Your task to perform on an android device: Go to battery settings Image 0: 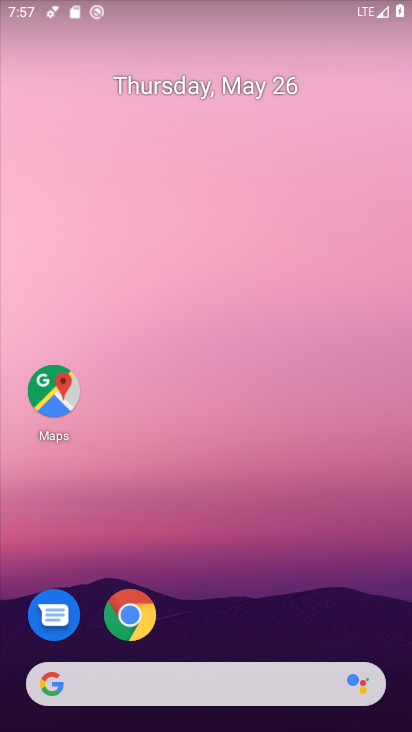
Step 0: drag from (189, 623) to (217, 327)
Your task to perform on an android device: Go to battery settings Image 1: 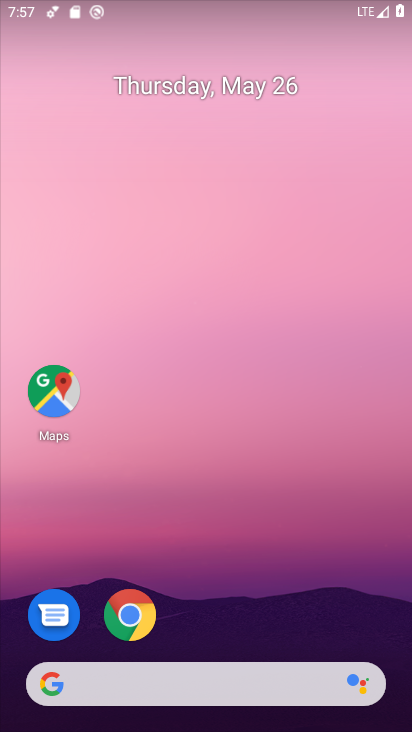
Step 1: drag from (205, 634) to (264, 184)
Your task to perform on an android device: Go to battery settings Image 2: 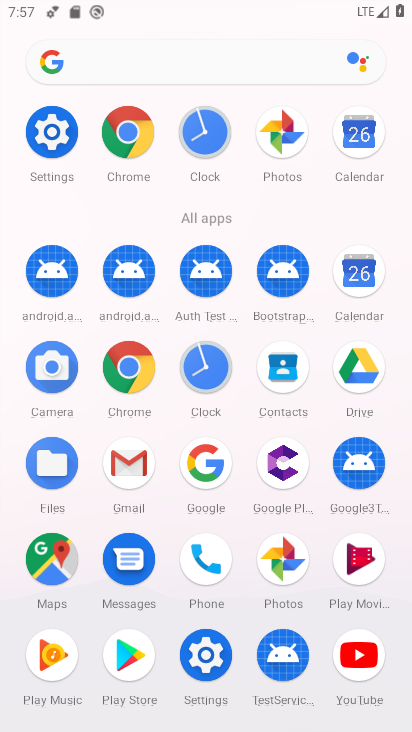
Step 2: click (52, 124)
Your task to perform on an android device: Go to battery settings Image 3: 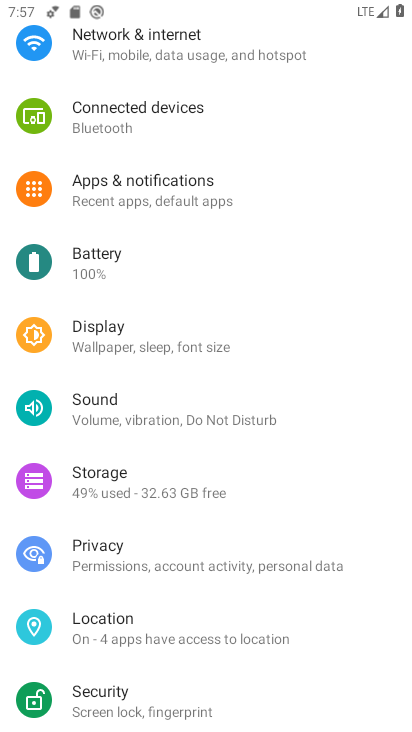
Step 3: click (106, 255)
Your task to perform on an android device: Go to battery settings Image 4: 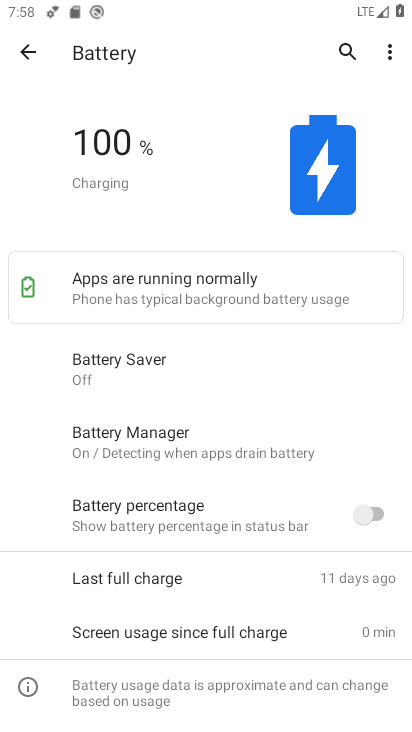
Step 4: task complete